Your task to perform on an android device: open a bookmark in the chrome app Image 0: 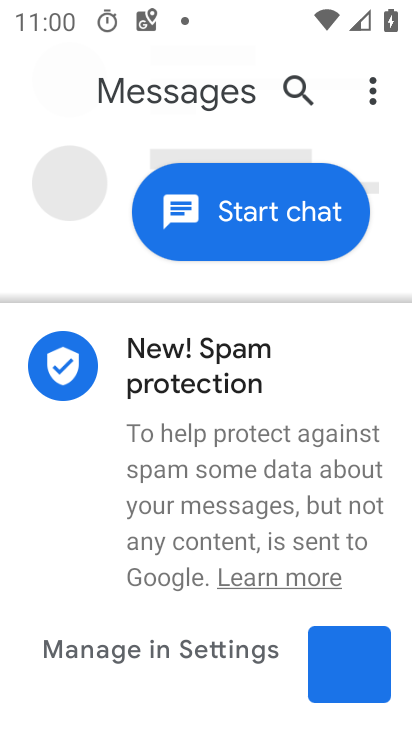
Step 0: press home button
Your task to perform on an android device: open a bookmark in the chrome app Image 1: 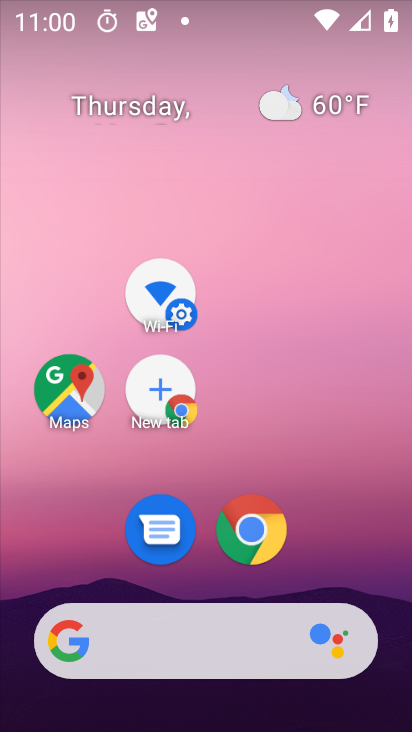
Step 1: drag from (365, 558) to (86, 8)
Your task to perform on an android device: open a bookmark in the chrome app Image 2: 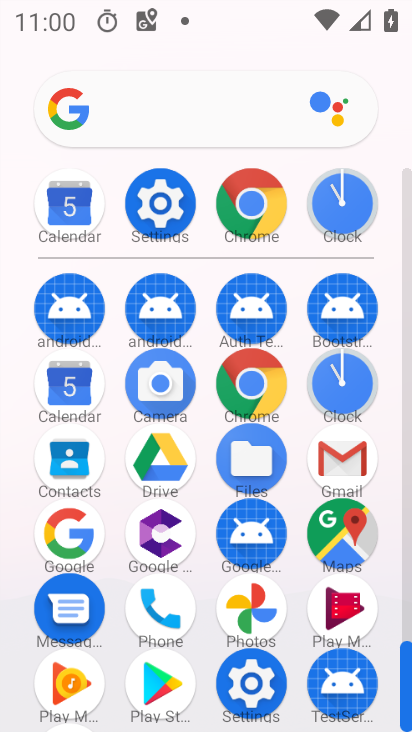
Step 2: click (258, 212)
Your task to perform on an android device: open a bookmark in the chrome app Image 3: 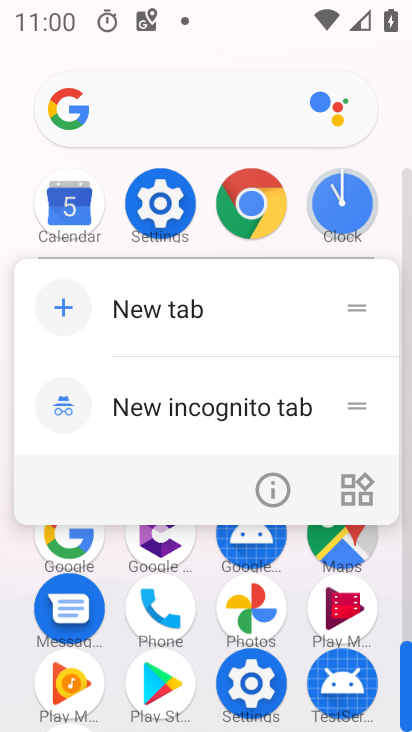
Step 3: click (256, 197)
Your task to perform on an android device: open a bookmark in the chrome app Image 4: 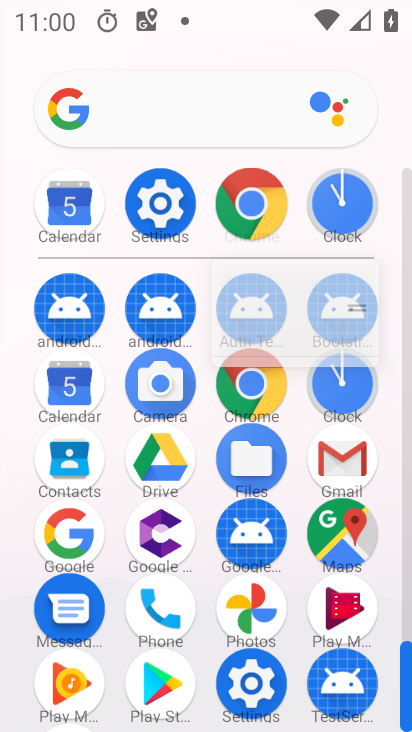
Step 4: click (256, 196)
Your task to perform on an android device: open a bookmark in the chrome app Image 5: 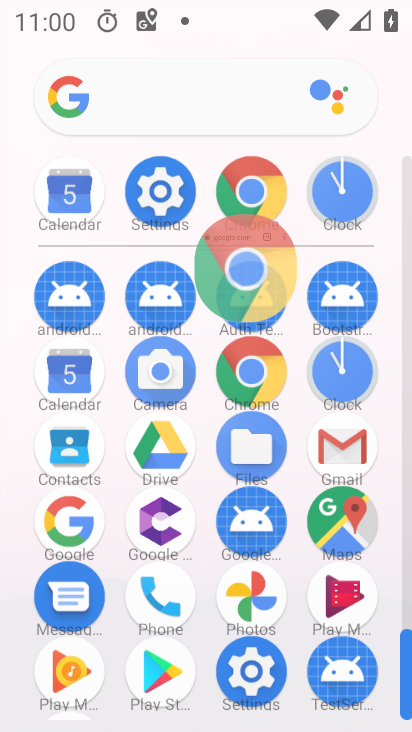
Step 5: click (256, 196)
Your task to perform on an android device: open a bookmark in the chrome app Image 6: 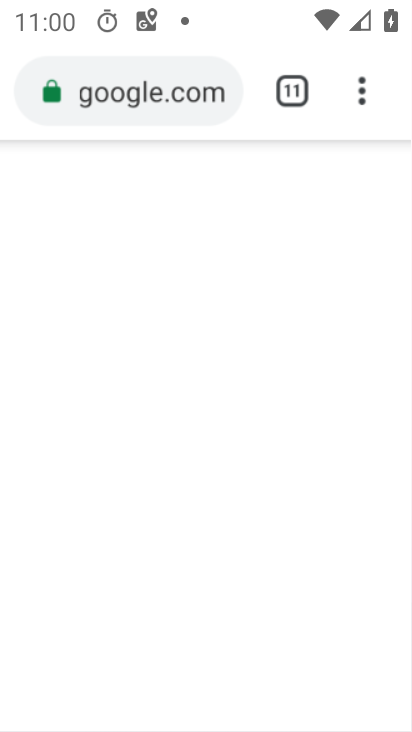
Step 6: click (258, 193)
Your task to perform on an android device: open a bookmark in the chrome app Image 7: 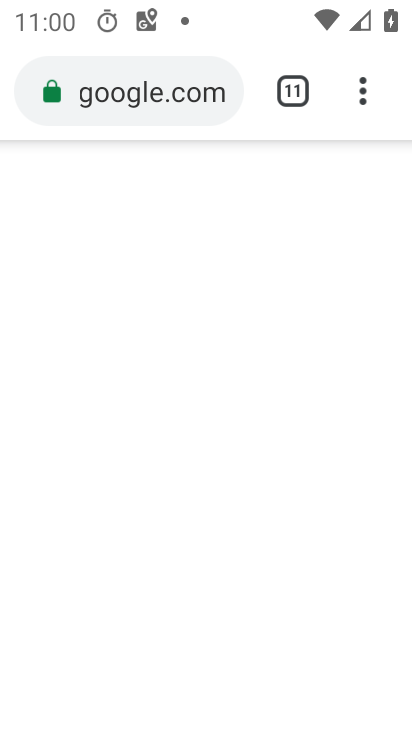
Step 7: click (365, 91)
Your task to perform on an android device: open a bookmark in the chrome app Image 8: 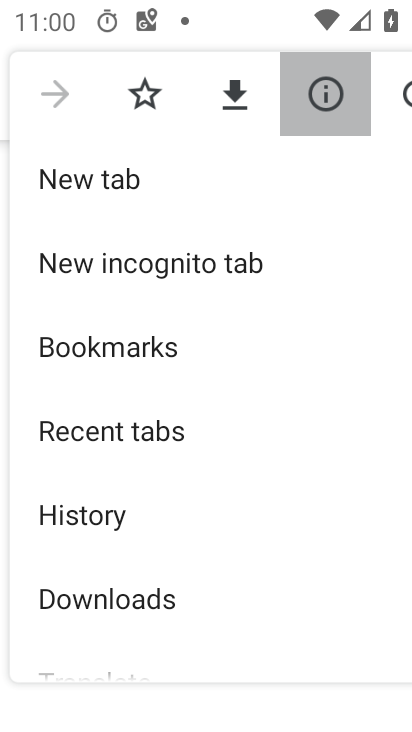
Step 8: click (365, 91)
Your task to perform on an android device: open a bookmark in the chrome app Image 9: 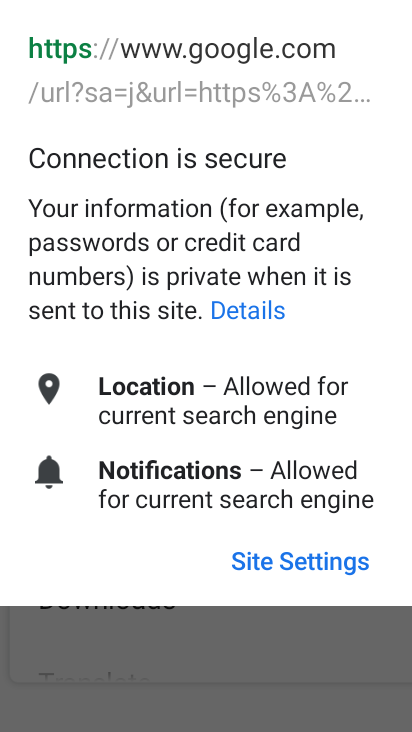
Step 9: click (365, 91)
Your task to perform on an android device: open a bookmark in the chrome app Image 10: 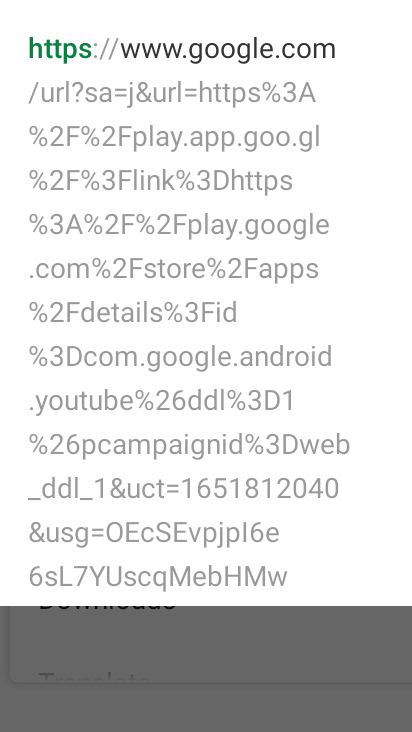
Step 10: click (373, 628)
Your task to perform on an android device: open a bookmark in the chrome app Image 11: 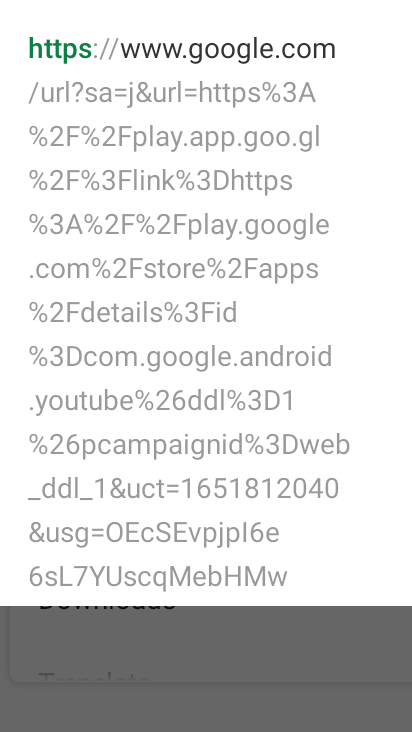
Step 11: click (246, 635)
Your task to perform on an android device: open a bookmark in the chrome app Image 12: 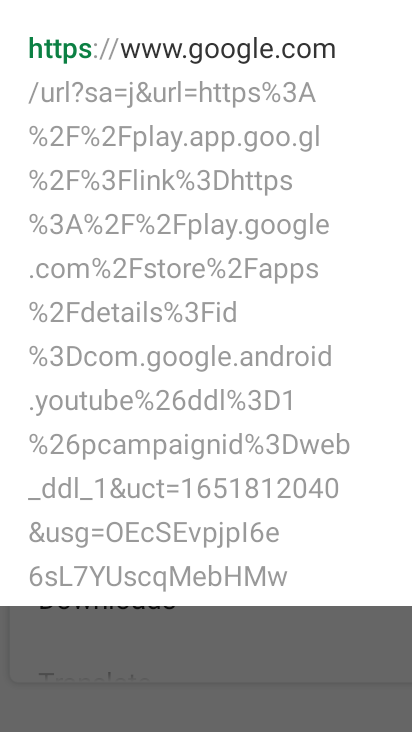
Step 12: click (246, 623)
Your task to perform on an android device: open a bookmark in the chrome app Image 13: 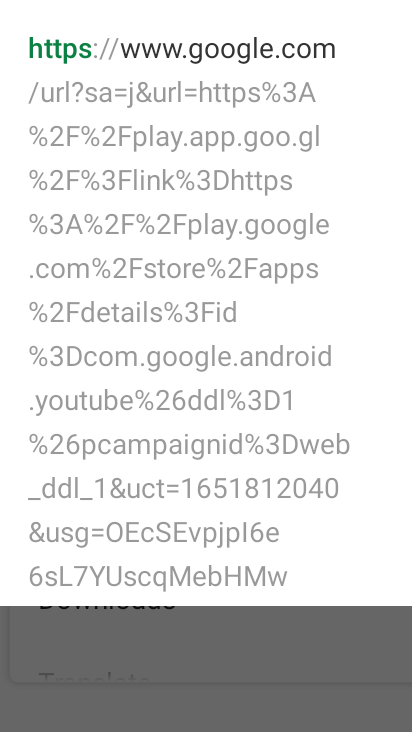
Step 13: click (249, 616)
Your task to perform on an android device: open a bookmark in the chrome app Image 14: 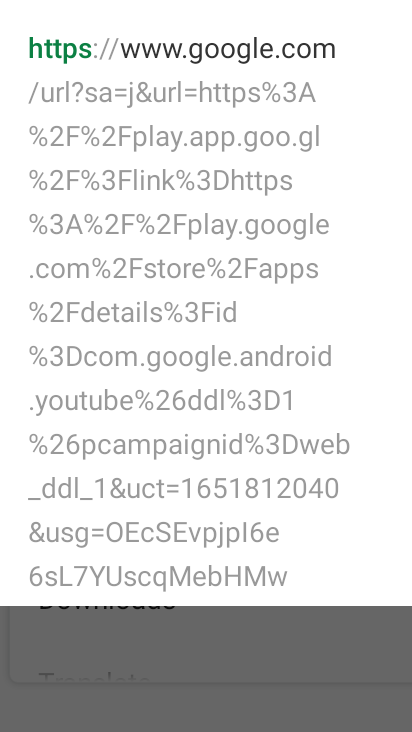
Step 14: click (251, 615)
Your task to perform on an android device: open a bookmark in the chrome app Image 15: 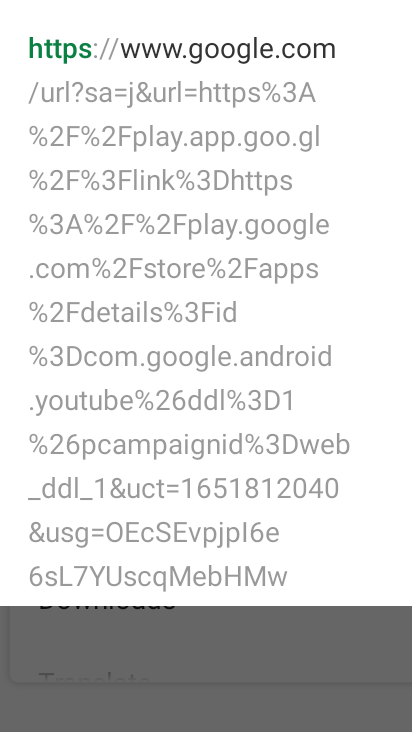
Step 15: click (322, 660)
Your task to perform on an android device: open a bookmark in the chrome app Image 16: 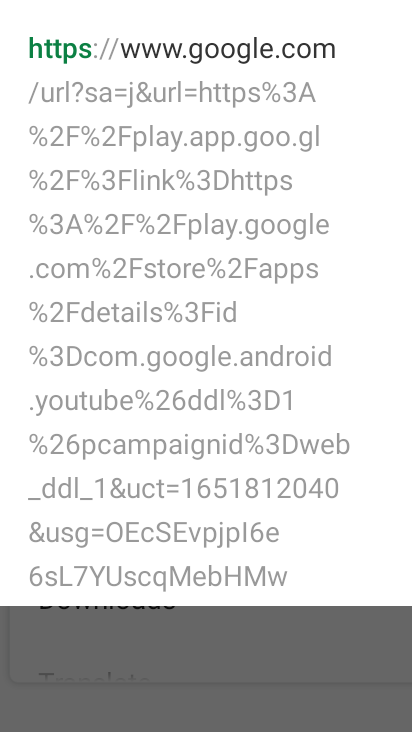
Step 16: click (322, 655)
Your task to perform on an android device: open a bookmark in the chrome app Image 17: 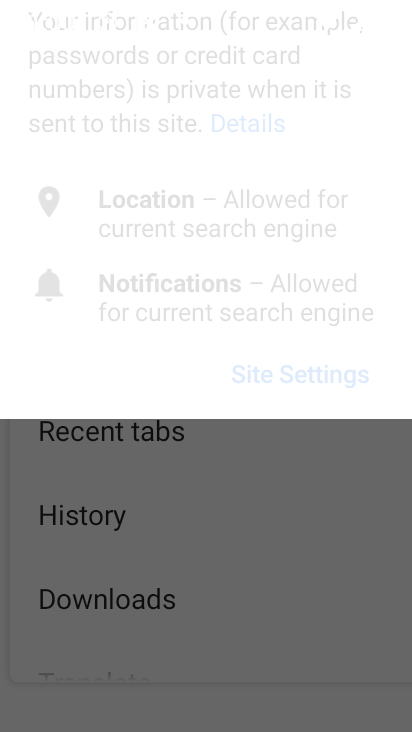
Step 17: click (324, 654)
Your task to perform on an android device: open a bookmark in the chrome app Image 18: 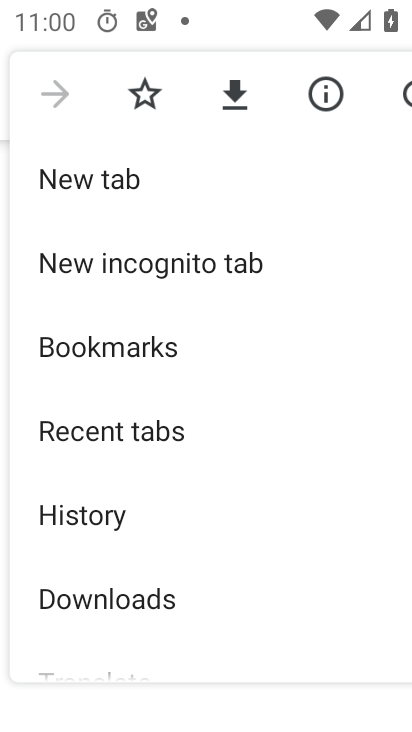
Step 18: click (328, 652)
Your task to perform on an android device: open a bookmark in the chrome app Image 19: 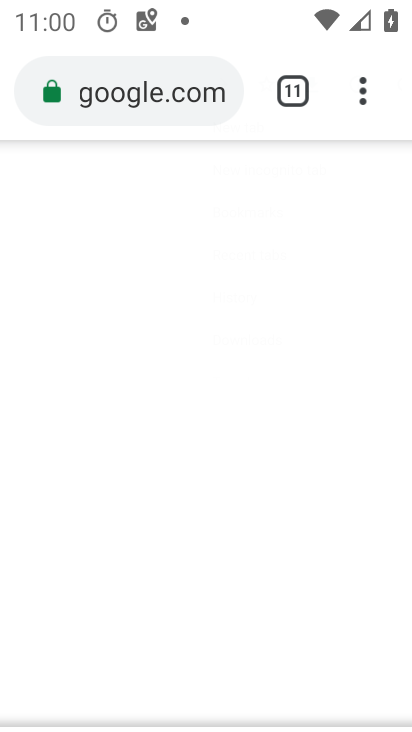
Step 19: click (329, 651)
Your task to perform on an android device: open a bookmark in the chrome app Image 20: 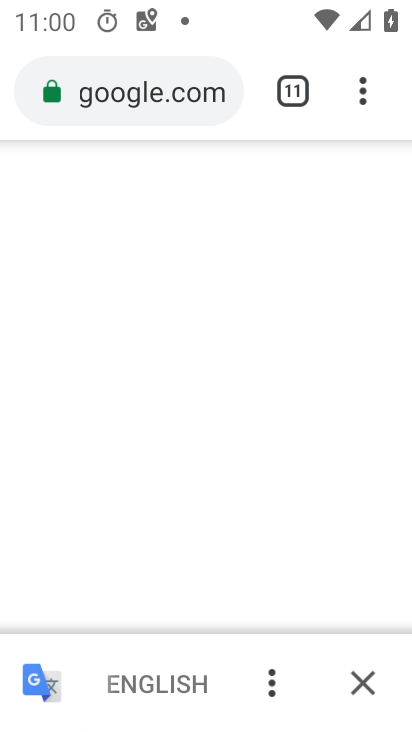
Step 20: click (363, 687)
Your task to perform on an android device: open a bookmark in the chrome app Image 21: 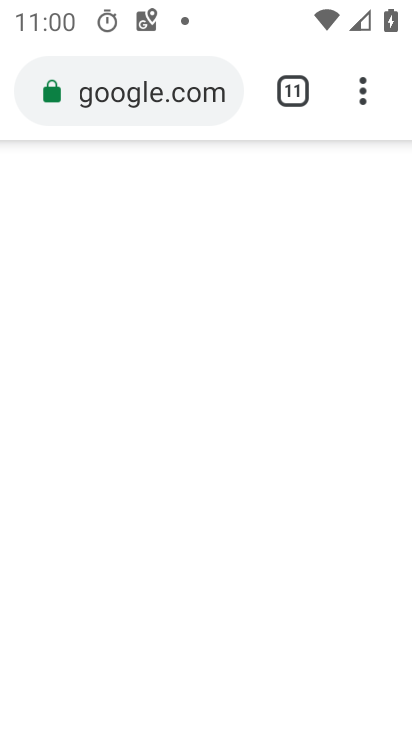
Step 21: drag from (374, 99) to (113, 349)
Your task to perform on an android device: open a bookmark in the chrome app Image 22: 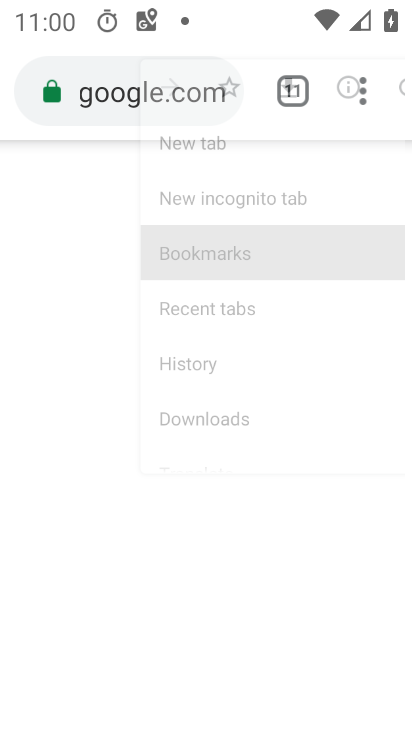
Step 22: click (123, 342)
Your task to perform on an android device: open a bookmark in the chrome app Image 23: 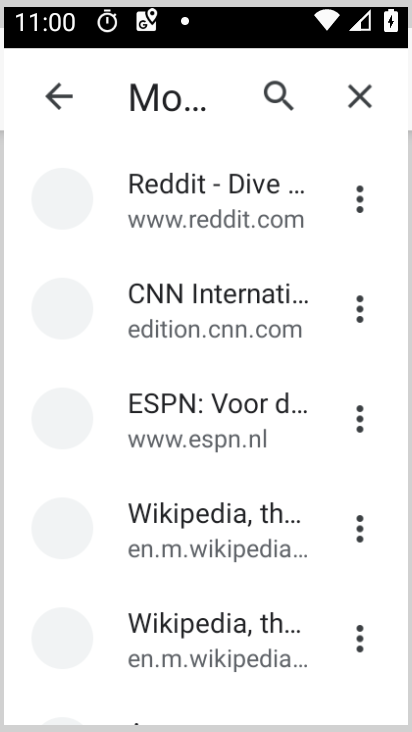
Step 23: click (126, 342)
Your task to perform on an android device: open a bookmark in the chrome app Image 24: 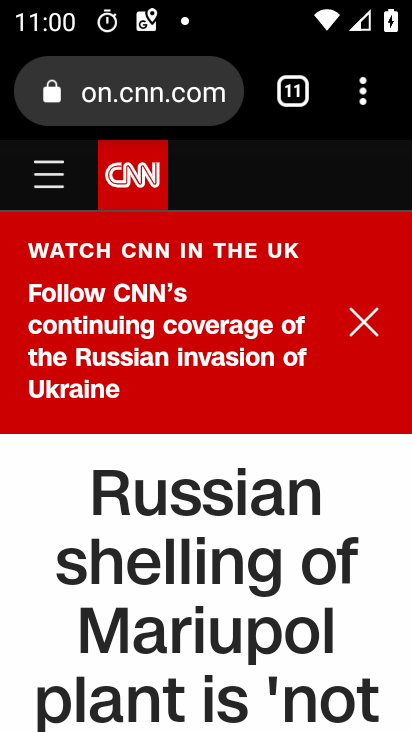
Step 24: drag from (365, 80) to (102, 356)
Your task to perform on an android device: open a bookmark in the chrome app Image 25: 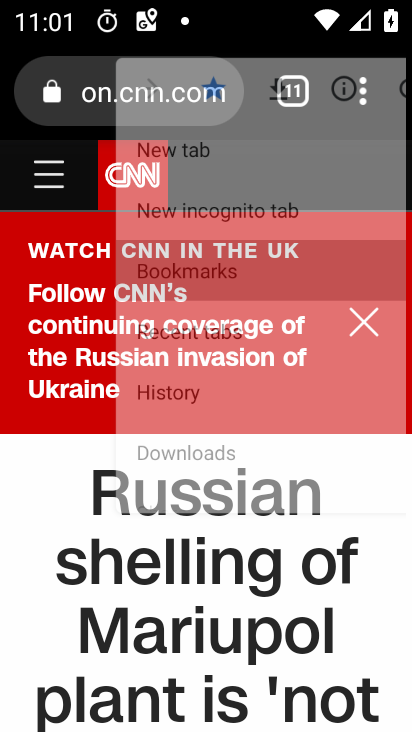
Step 25: click (102, 356)
Your task to perform on an android device: open a bookmark in the chrome app Image 26: 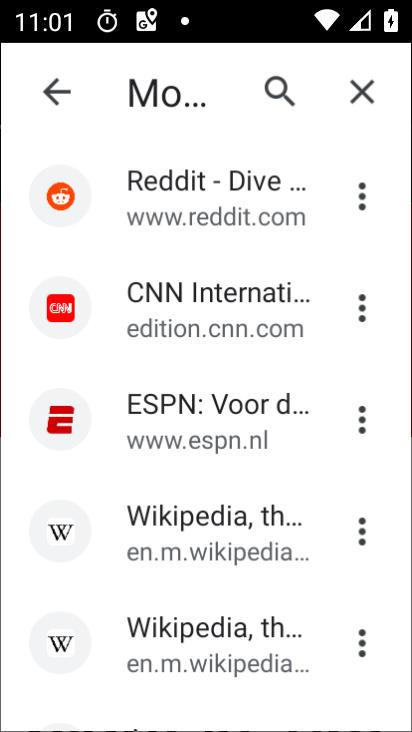
Step 26: click (102, 356)
Your task to perform on an android device: open a bookmark in the chrome app Image 27: 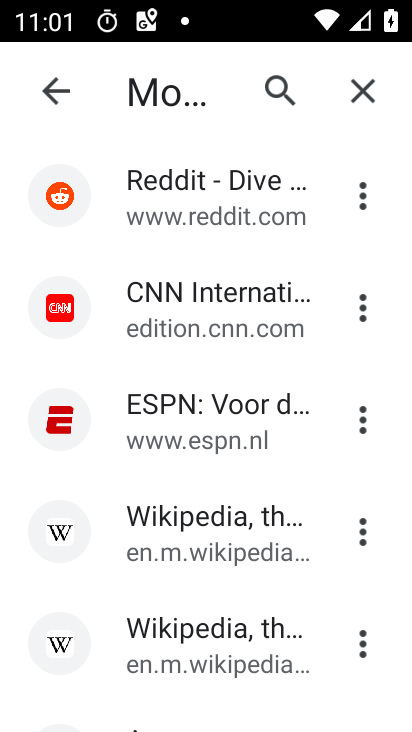
Step 27: click (102, 356)
Your task to perform on an android device: open a bookmark in the chrome app Image 28: 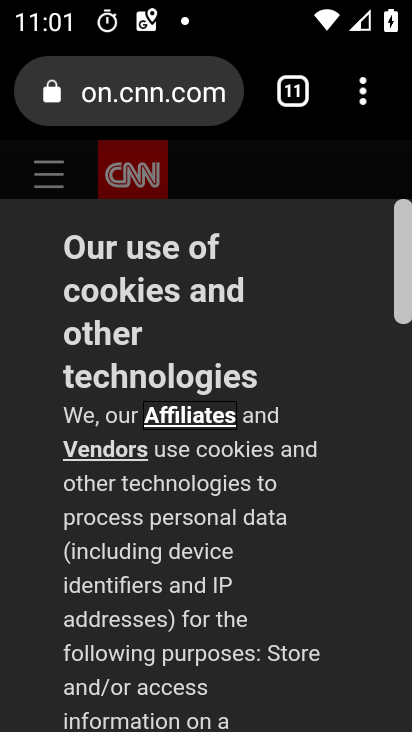
Step 28: task complete